Your task to perform on an android device: turn off location history Image 0: 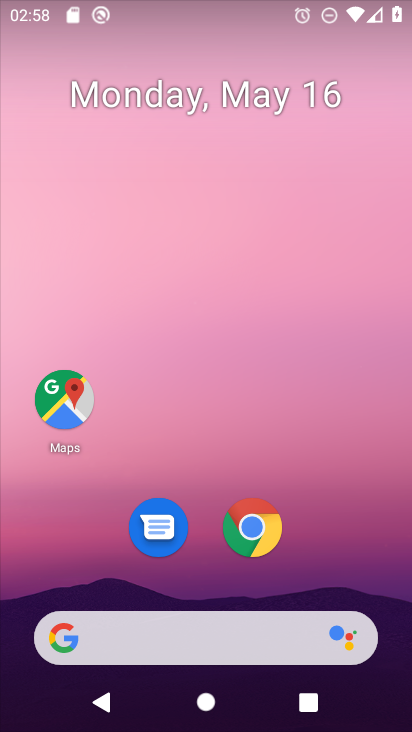
Step 0: drag from (338, 560) to (378, 104)
Your task to perform on an android device: turn off location history Image 1: 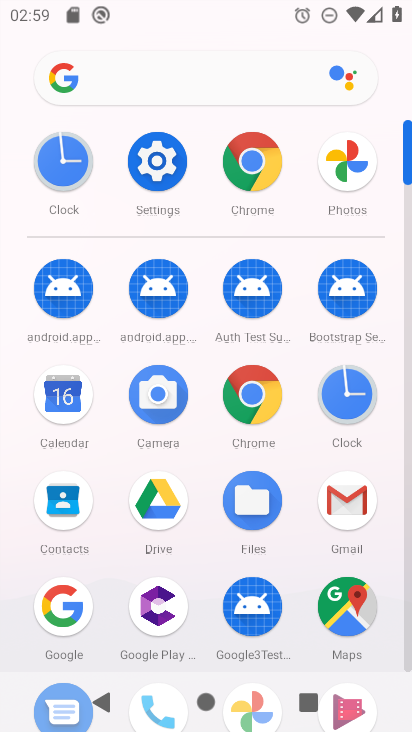
Step 1: click (165, 180)
Your task to perform on an android device: turn off location history Image 2: 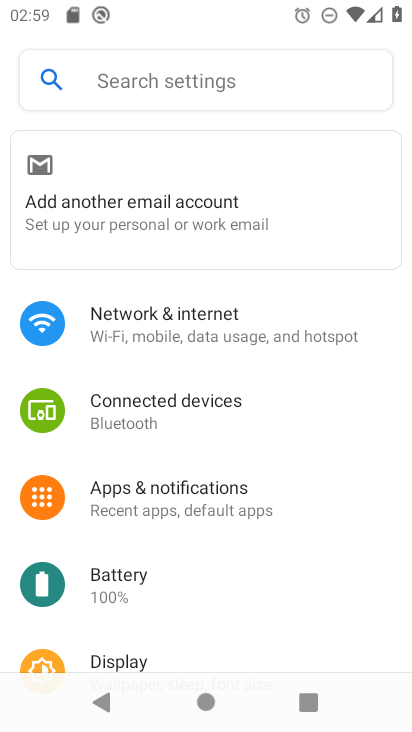
Step 2: drag from (169, 622) to (168, 105)
Your task to perform on an android device: turn off location history Image 3: 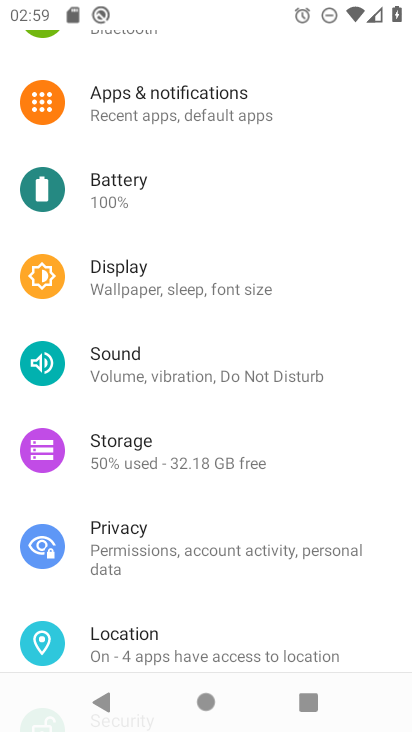
Step 3: click (139, 655)
Your task to perform on an android device: turn off location history Image 4: 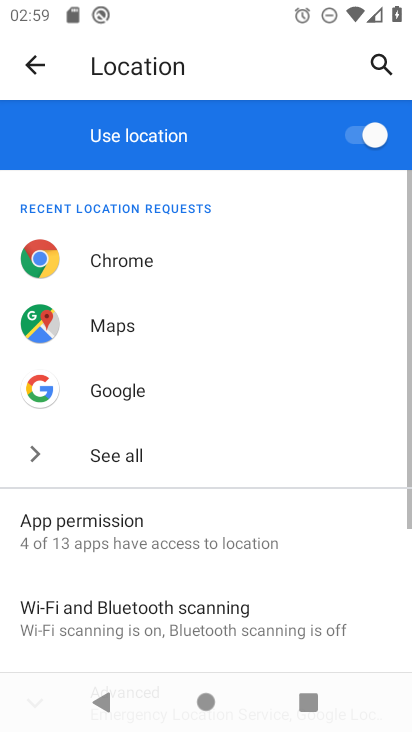
Step 4: drag from (200, 638) to (215, 574)
Your task to perform on an android device: turn off location history Image 5: 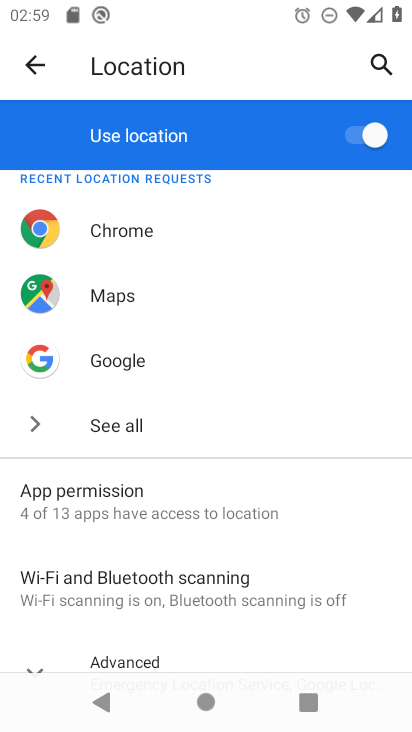
Step 5: click (182, 651)
Your task to perform on an android device: turn off location history Image 6: 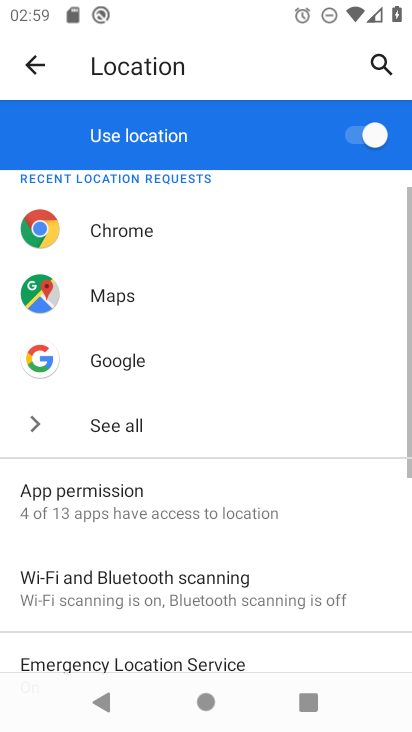
Step 6: drag from (248, 636) to (280, 44)
Your task to perform on an android device: turn off location history Image 7: 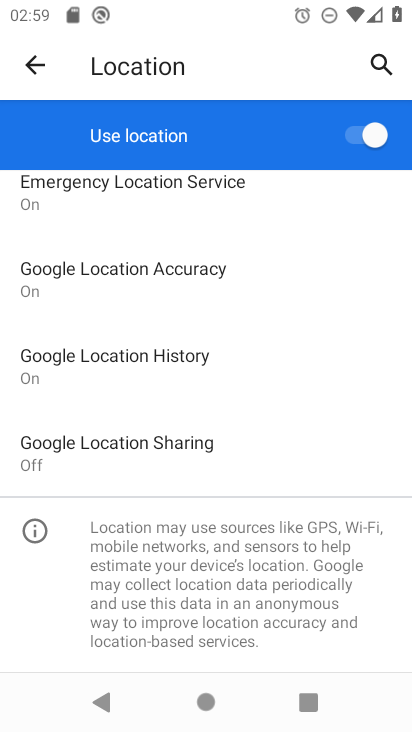
Step 7: click (199, 352)
Your task to perform on an android device: turn off location history Image 8: 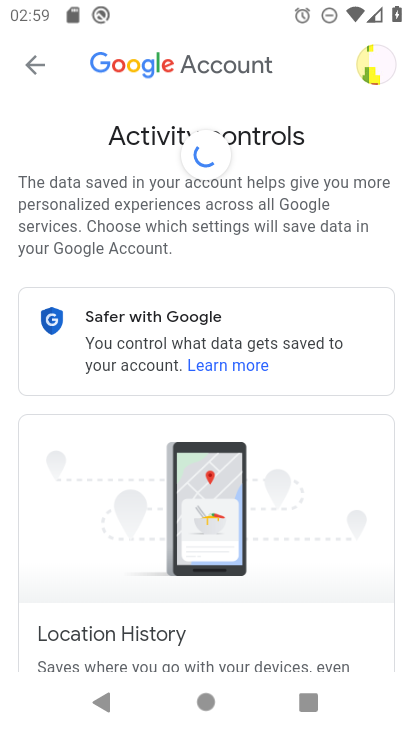
Step 8: drag from (266, 609) to (299, 162)
Your task to perform on an android device: turn off location history Image 9: 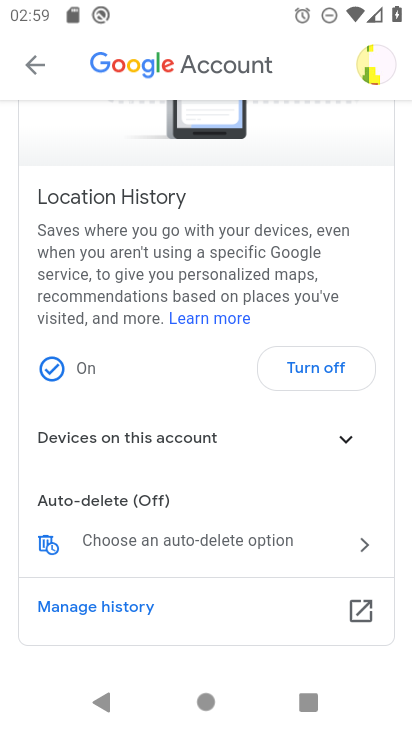
Step 9: click (328, 530)
Your task to perform on an android device: turn off location history Image 10: 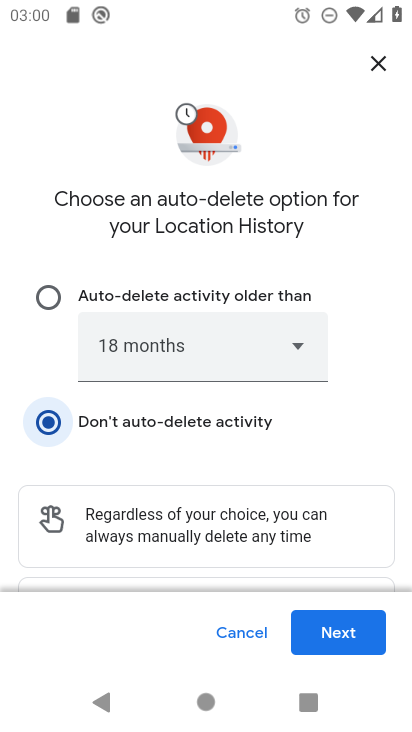
Step 10: click (314, 632)
Your task to perform on an android device: turn off location history Image 11: 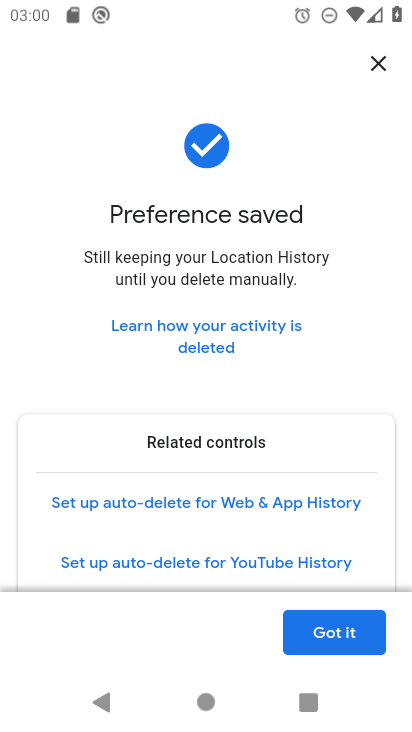
Step 11: click (314, 632)
Your task to perform on an android device: turn off location history Image 12: 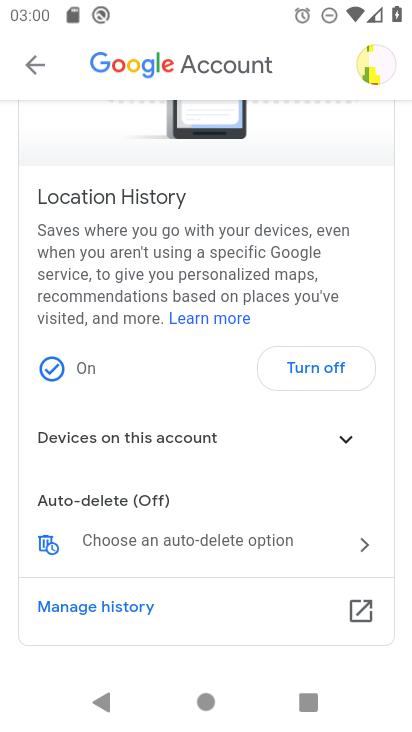
Step 12: task complete